Your task to perform on an android device: Empty the shopping cart on costco.com. Add "bose soundlink" to the cart on costco.com, then select checkout. Image 0: 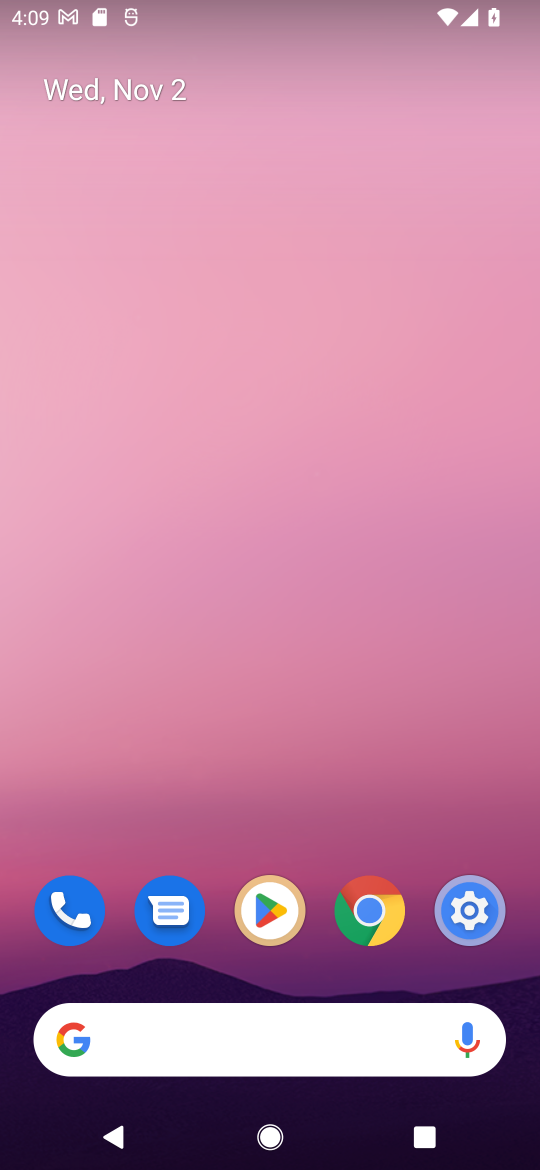
Step 0: click (323, 1041)
Your task to perform on an android device: Empty the shopping cart on costco.com. Add "bose soundlink" to the cart on costco.com, then select checkout. Image 1: 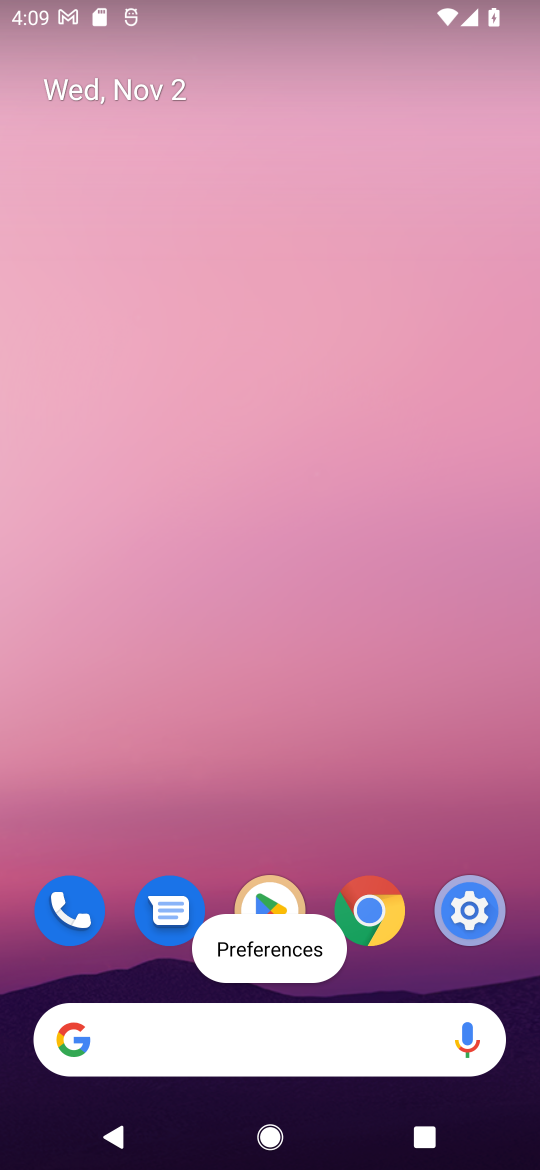
Step 1: click (273, 1054)
Your task to perform on an android device: Empty the shopping cart on costco.com. Add "bose soundlink" to the cart on costco.com, then select checkout. Image 2: 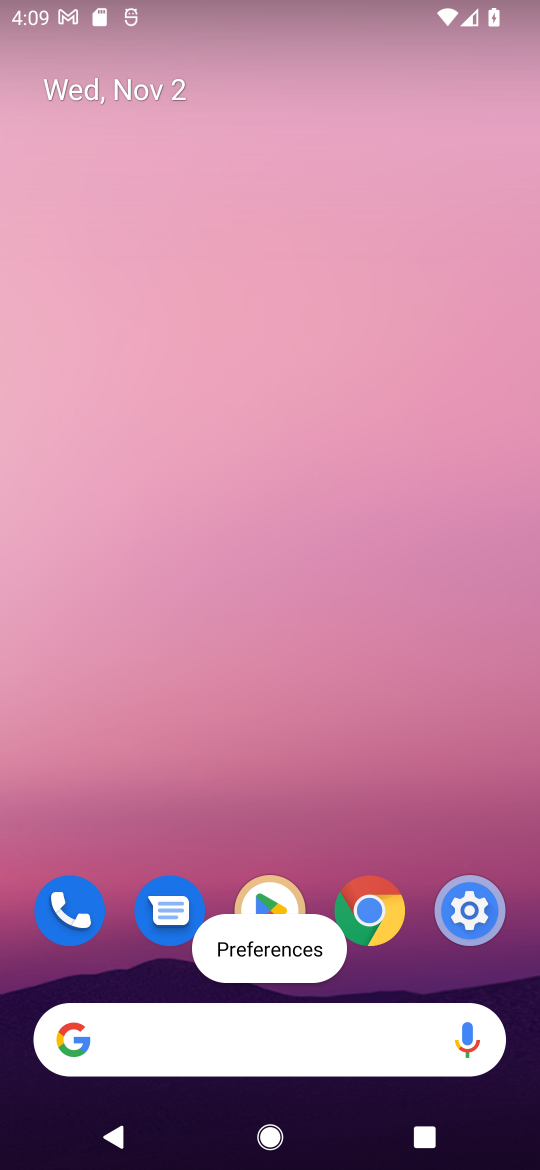
Step 2: click (146, 1019)
Your task to perform on an android device: Empty the shopping cart on costco.com. Add "bose soundlink" to the cart on costco.com, then select checkout. Image 3: 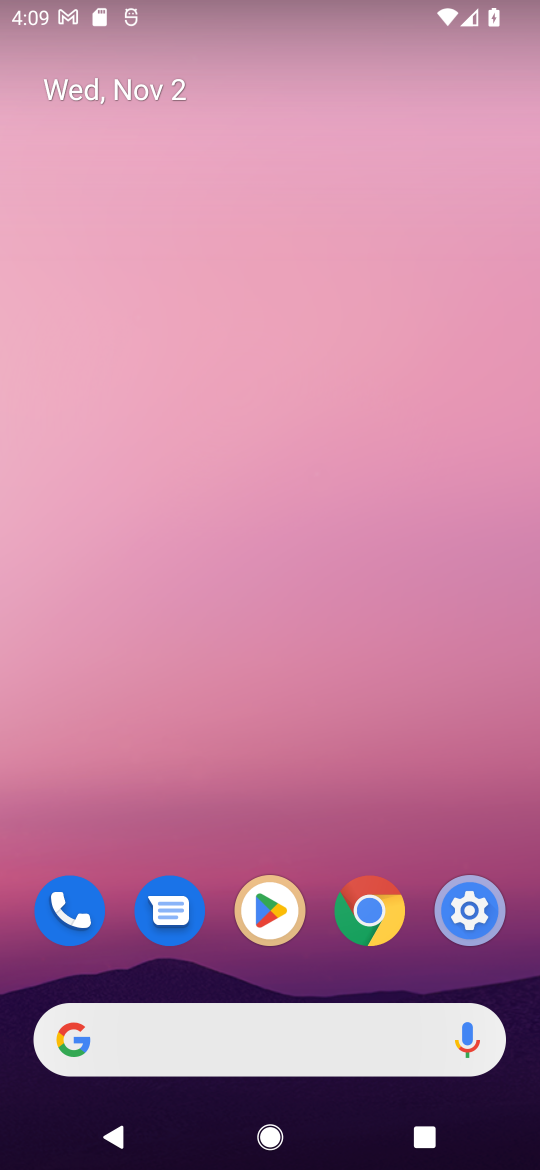
Step 3: click (148, 1019)
Your task to perform on an android device: Empty the shopping cart on costco.com. Add "bose soundlink" to the cart on costco.com, then select checkout. Image 4: 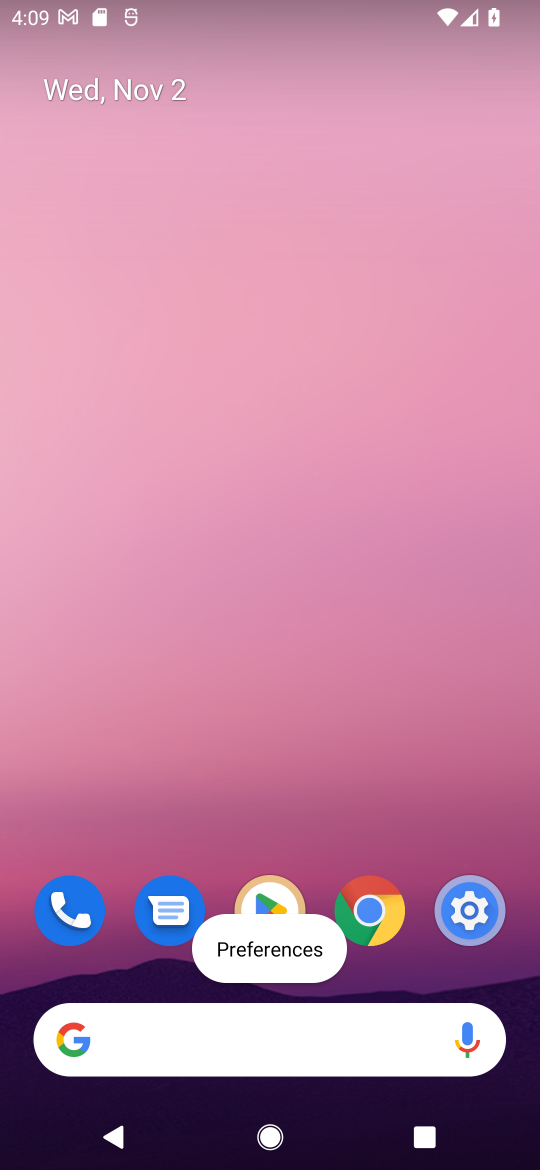
Step 4: click (156, 1033)
Your task to perform on an android device: Empty the shopping cart on costco.com. Add "bose soundlink" to the cart on costco.com, then select checkout. Image 5: 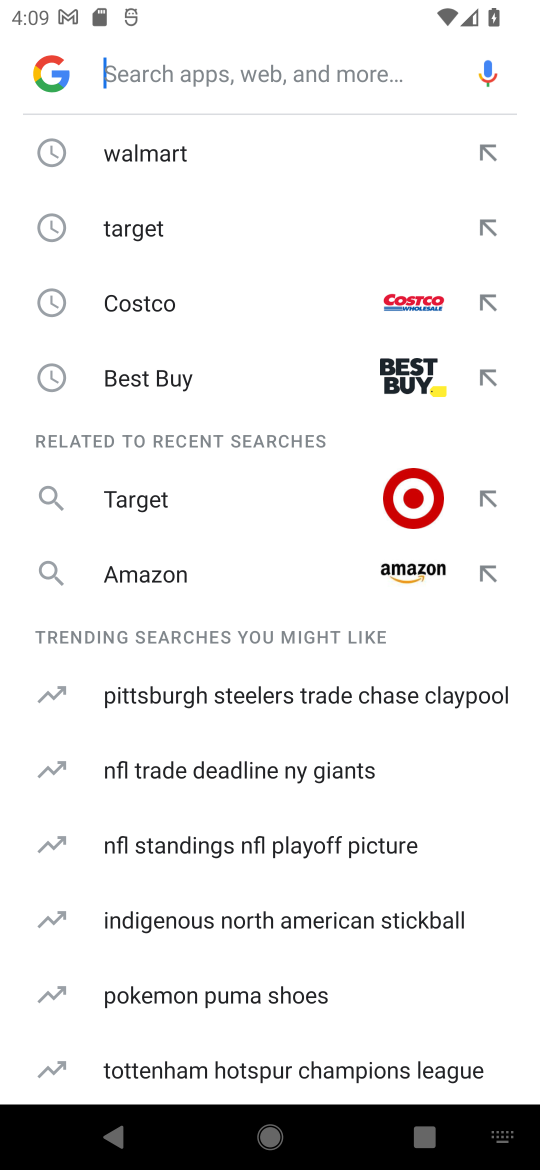
Step 5: click (156, 1033)
Your task to perform on an android device: Empty the shopping cart on costco.com. Add "bose soundlink" to the cart on costco.com, then select checkout. Image 6: 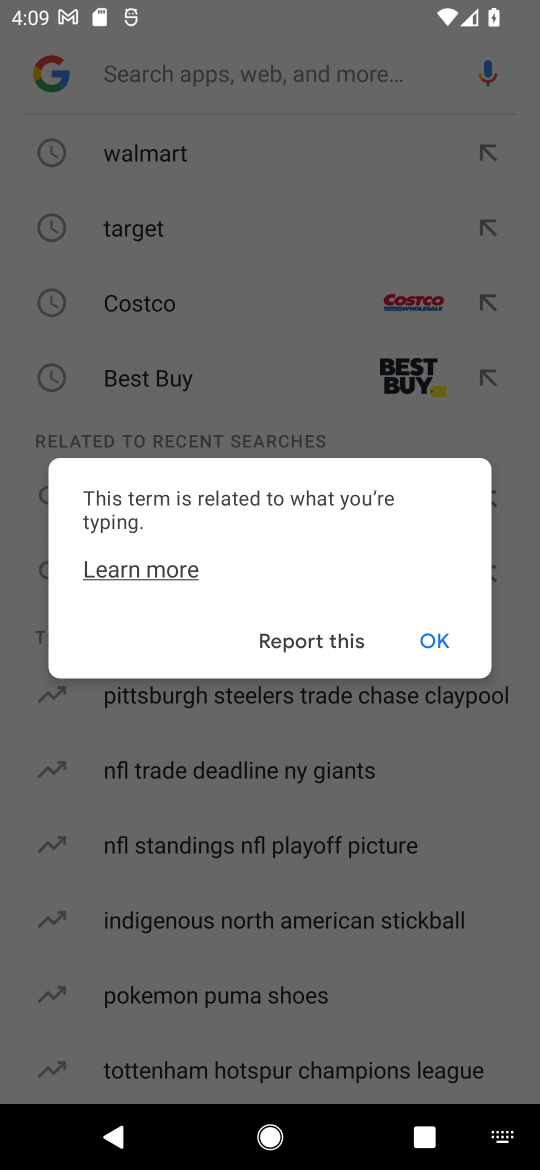
Step 6: click (197, 304)
Your task to perform on an android device: Empty the shopping cart on costco.com. Add "bose soundlink" to the cart on costco.com, then select checkout. Image 7: 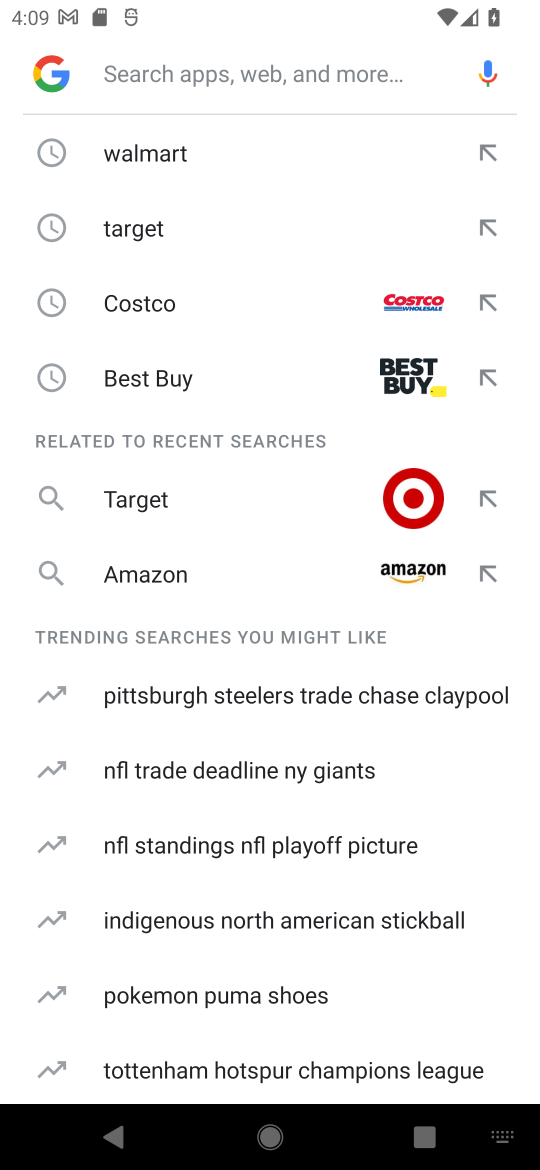
Step 7: click (142, 298)
Your task to perform on an android device: Empty the shopping cart on costco.com. Add "bose soundlink" to the cart on costco.com, then select checkout. Image 8: 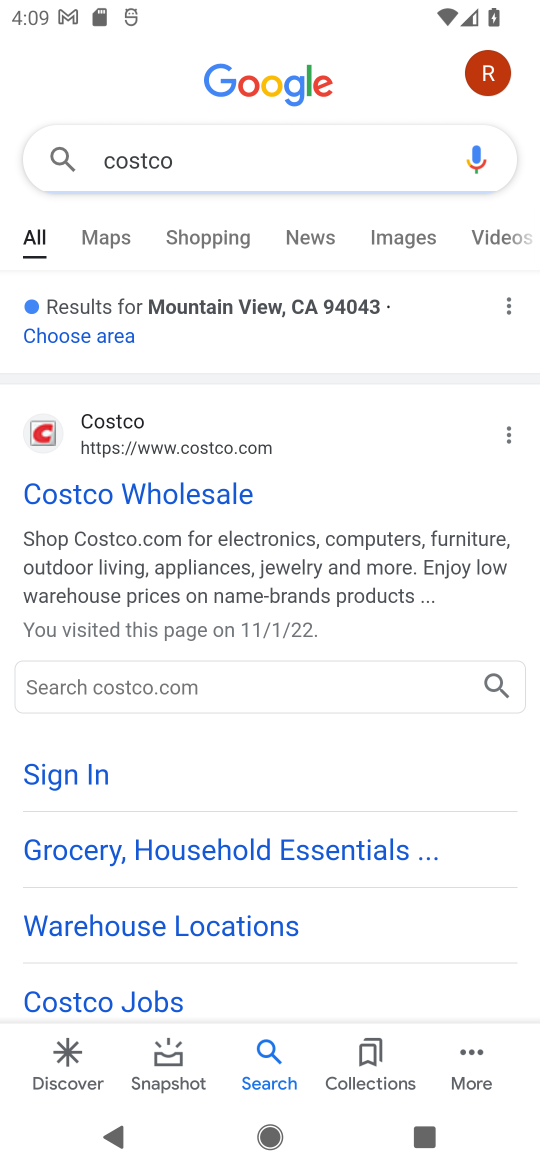
Step 8: click (206, 465)
Your task to perform on an android device: Empty the shopping cart on costco.com. Add "bose soundlink" to the cart on costco.com, then select checkout. Image 9: 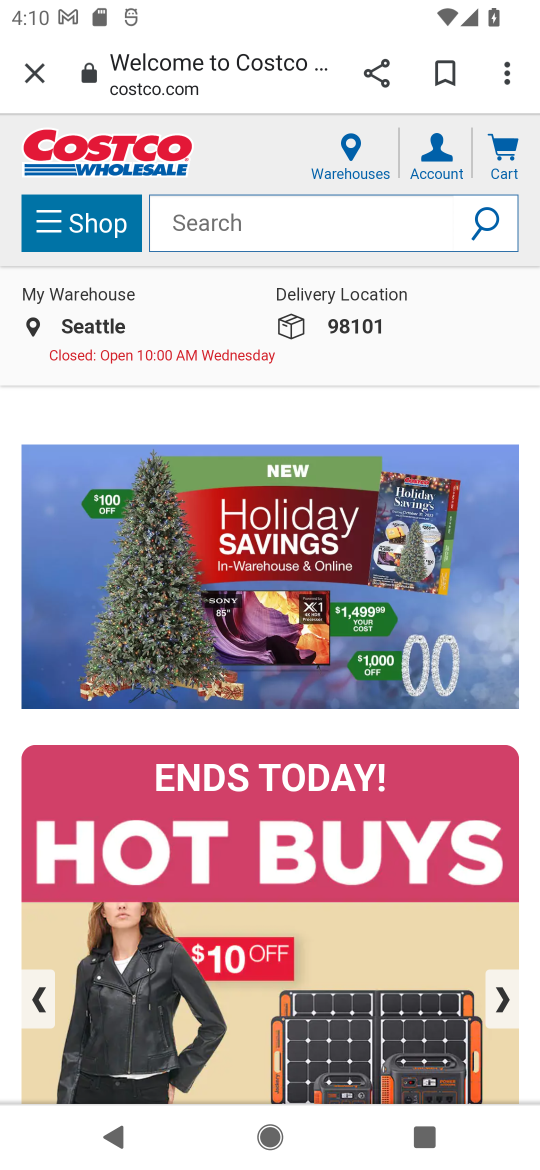
Step 9: click (485, 223)
Your task to perform on an android device: Empty the shopping cart on costco.com. Add "bose soundlink" to the cart on costco.com, then select checkout. Image 10: 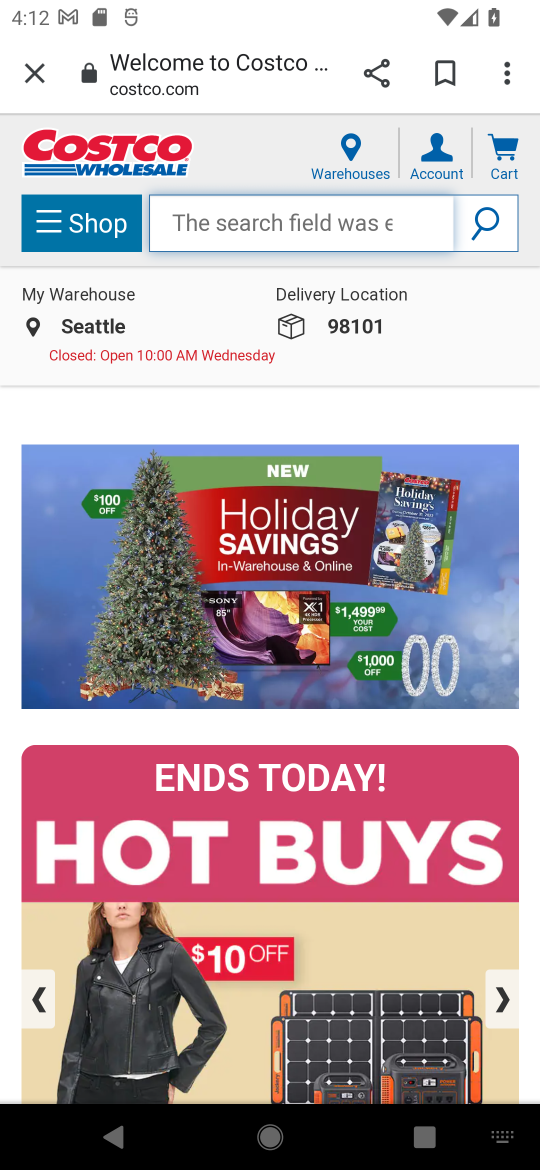
Step 10: task complete